Your task to perform on an android device: Open the phone app and click the voicemail tab. Image 0: 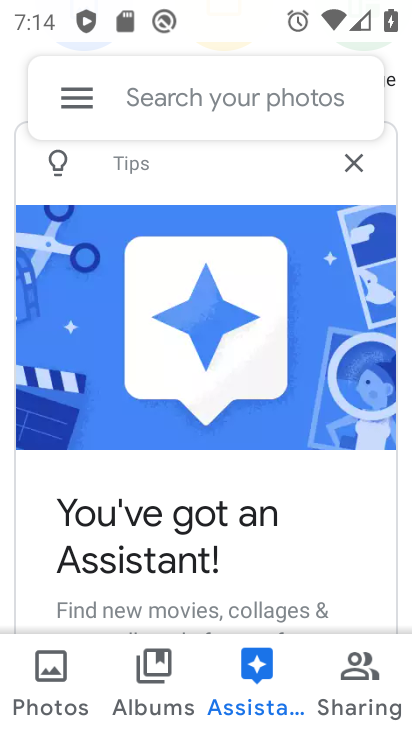
Step 0: press home button
Your task to perform on an android device: Open the phone app and click the voicemail tab. Image 1: 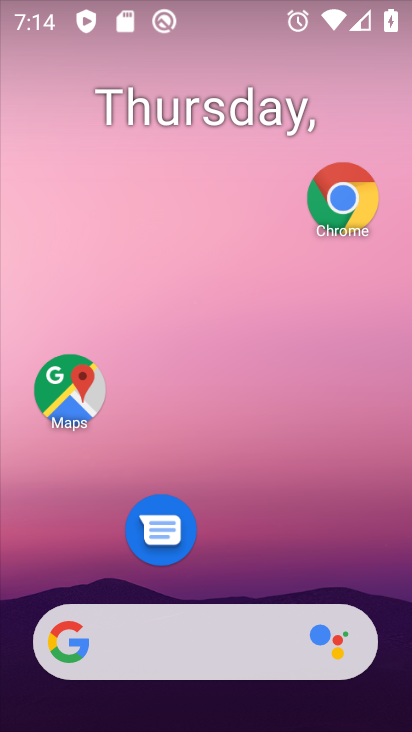
Step 1: drag from (231, 688) to (189, 242)
Your task to perform on an android device: Open the phone app and click the voicemail tab. Image 2: 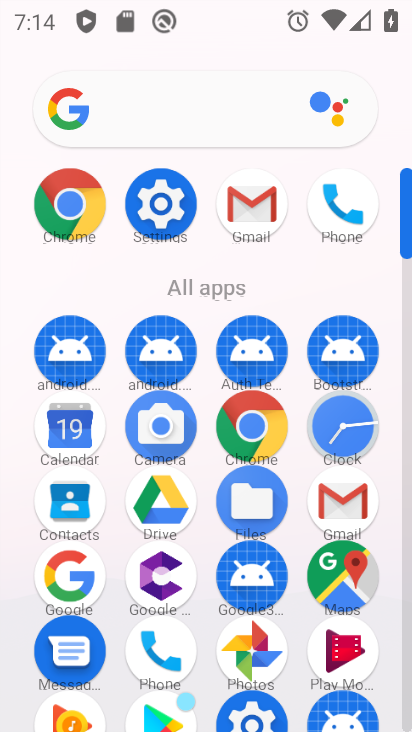
Step 2: click (175, 638)
Your task to perform on an android device: Open the phone app and click the voicemail tab. Image 3: 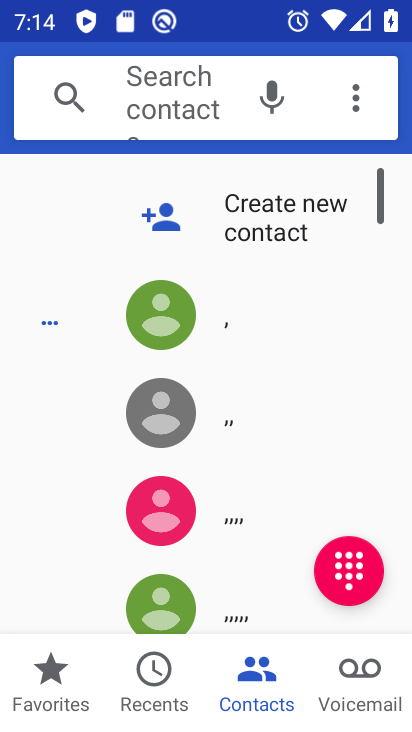
Step 3: click (337, 678)
Your task to perform on an android device: Open the phone app and click the voicemail tab. Image 4: 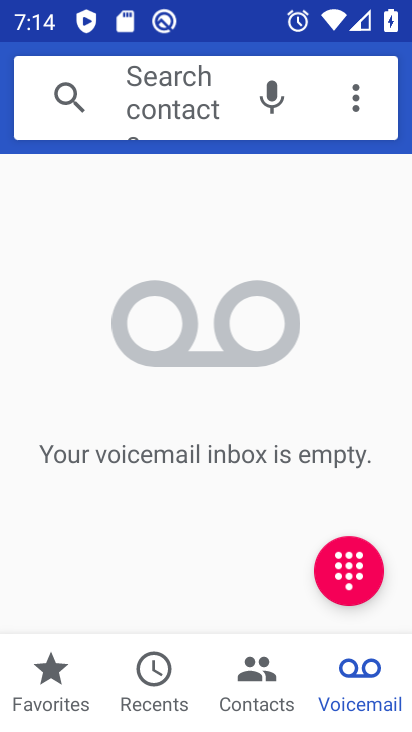
Step 4: task complete